Your task to perform on an android device: Open maps Image 0: 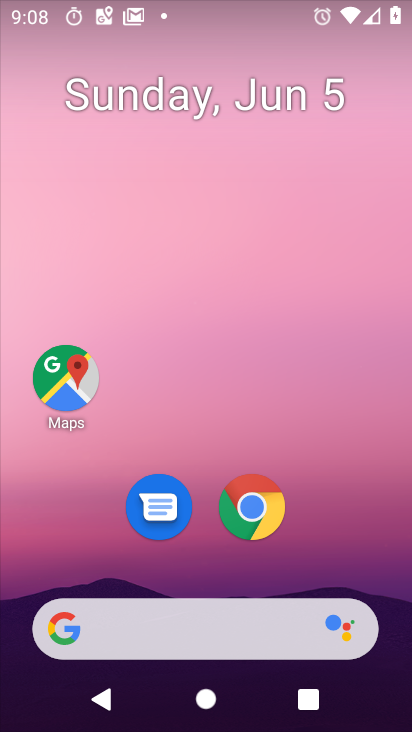
Step 0: drag from (255, 674) to (194, 114)
Your task to perform on an android device: Open maps Image 1: 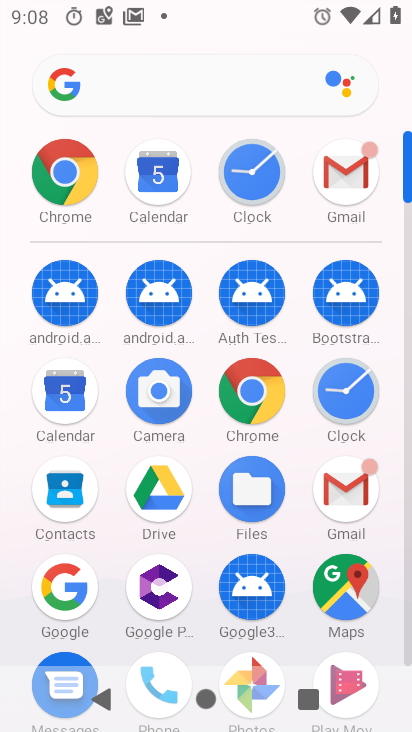
Step 1: click (325, 565)
Your task to perform on an android device: Open maps Image 2: 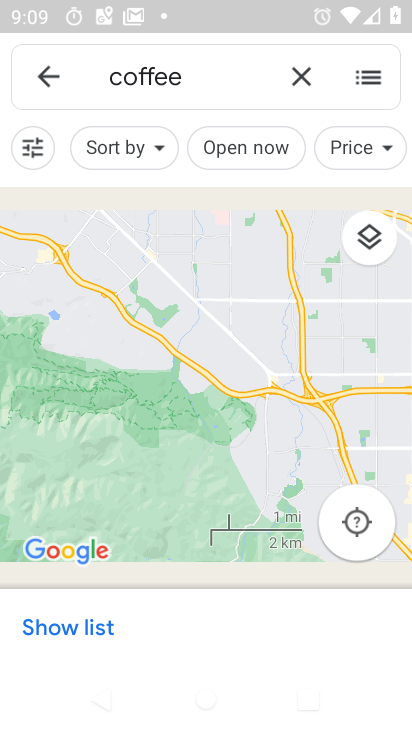
Step 2: click (50, 70)
Your task to perform on an android device: Open maps Image 3: 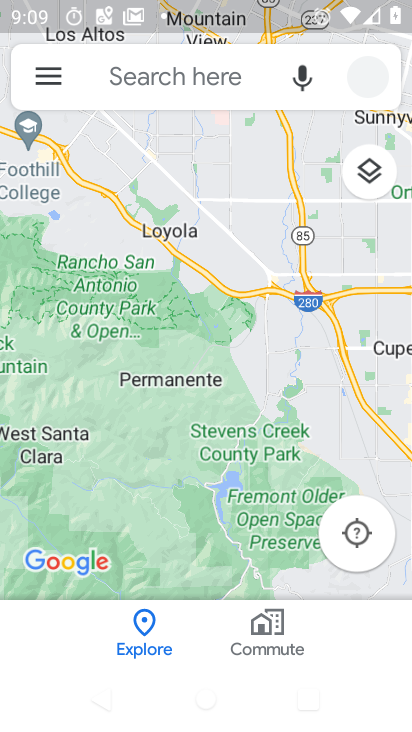
Step 3: click (48, 87)
Your task to perform on an android device: Open maps Image 4: 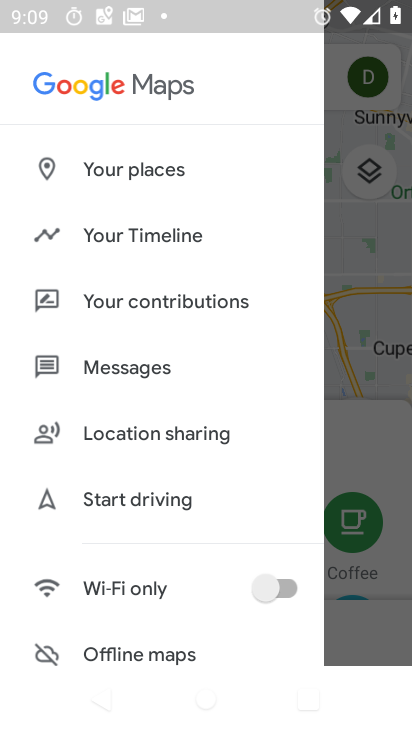
Step 4: click (366, 322)
Your task to perform on an android device: Open maps Image 5: 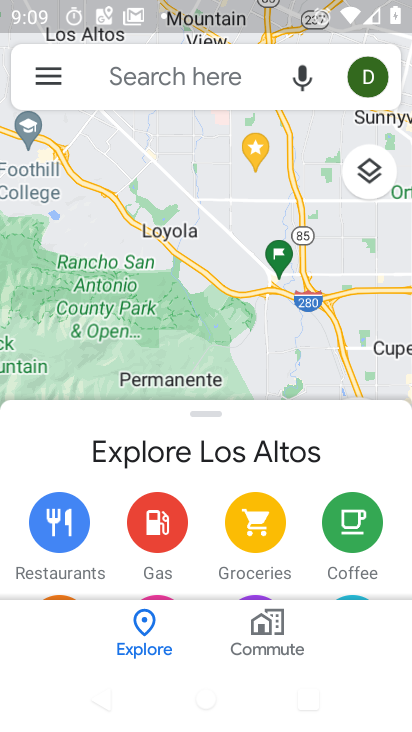
Step 5: click (226, 320)
Your task to perform on an android device: Open maps Image 6: 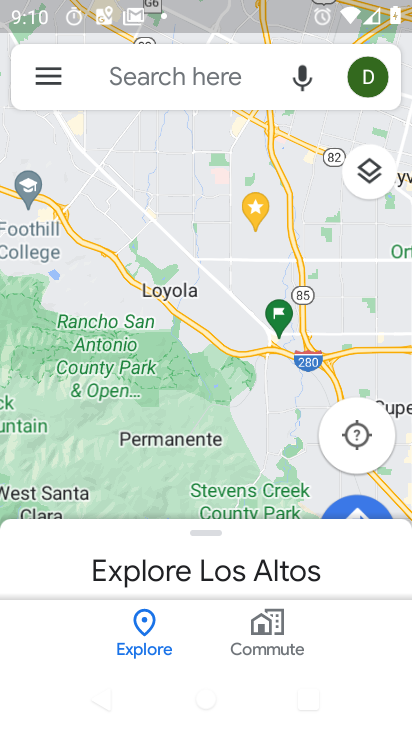
Step 6: task complete